Your task to perform on an android device: toggle pop-ups in chrome Image 0: 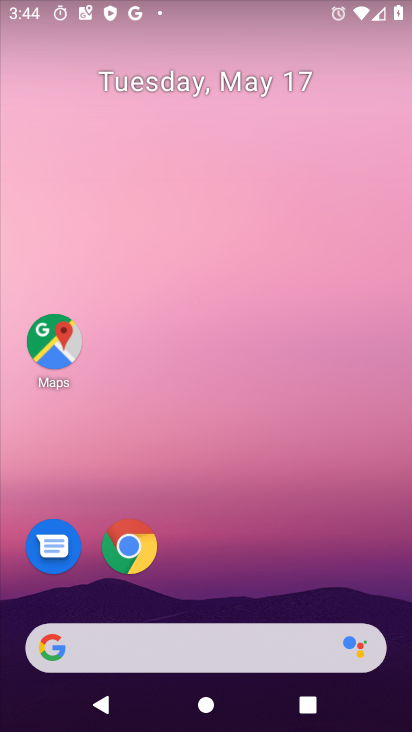
Step 0: click (118, 555)
Your task to perform on an android device: toggle pop-ups in chrome Image 1: 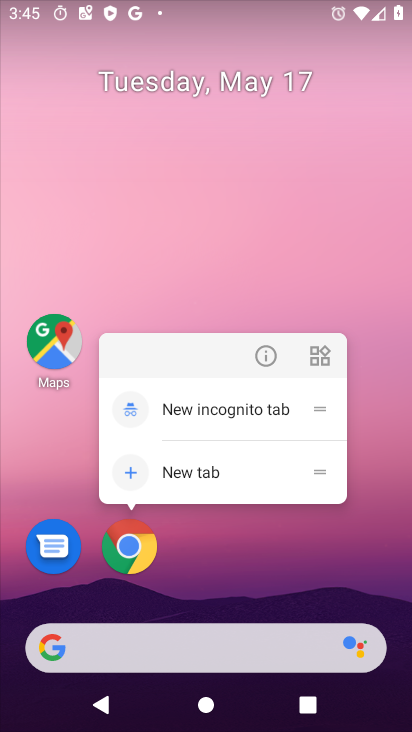
Step 1: click (134, 546)
Your task to perform on an android device: toggle pop-ups in chrome Image 2: 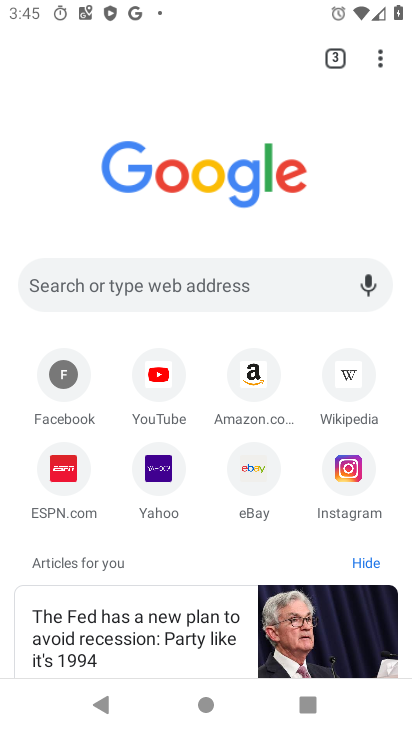
Step 2: click (382, 58)
Your task to perform on an android device: toggle pop-ups in chrome Image 3: 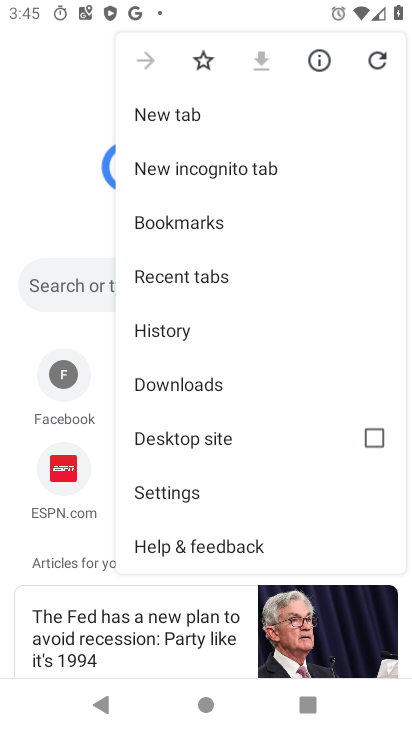
Step 3: click (200, 499)
Your task to perform on an android device: toggle pop-ups in chrome Image 4: 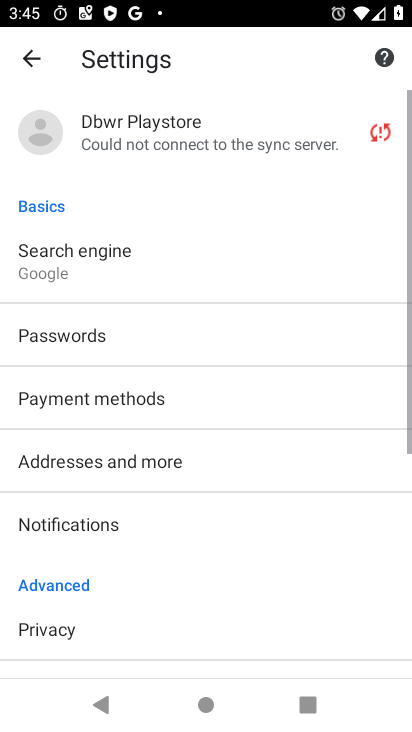
Step 4: drag from (233, 590) to (224, 376)
Your task to perform on an android device: toggle pop-ups in chrome Image 5: 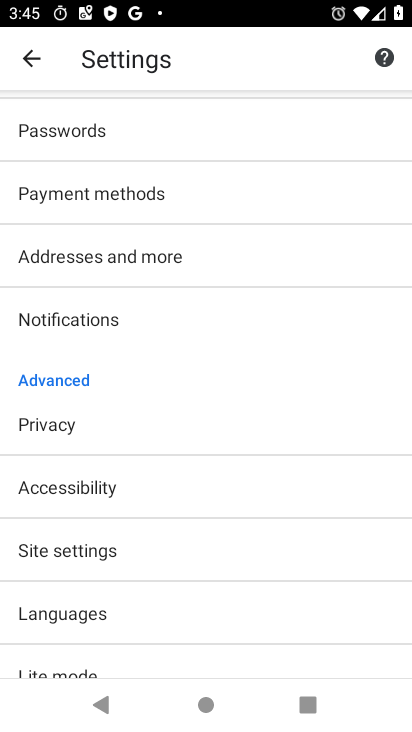
Step 5: click (80, 556)
Your task to perform on an android device: toggle pop-ups in chrome Image 6: 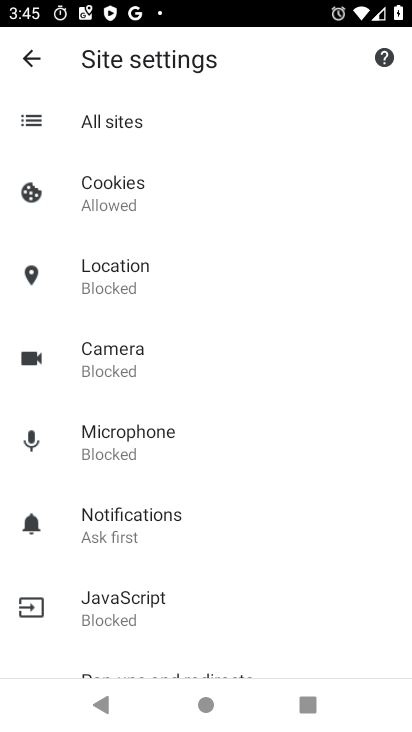
Step 6: click (216, 501)
Your task to perform on an android device: toggle pop-ups in chrome Image 7: 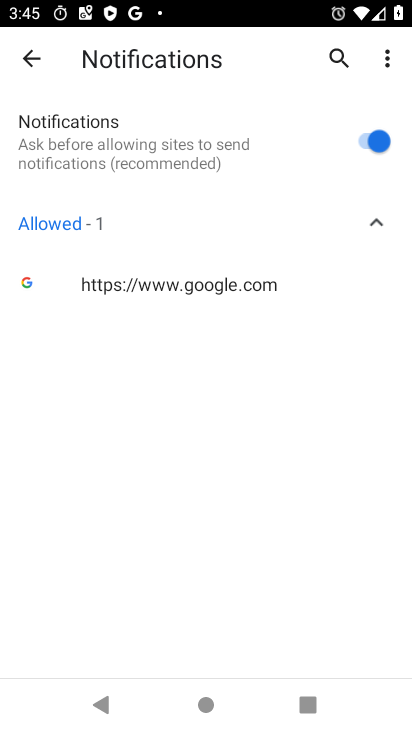
Step 7: click (19, 59)
Your task to perform on an android device: toggle pop-ups in chrome Image 8: 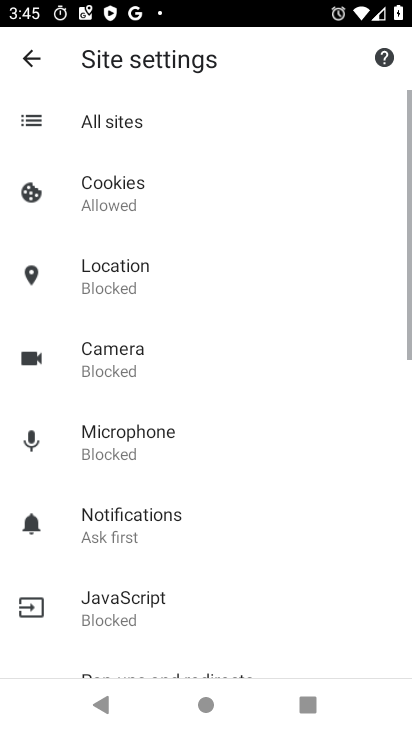
Step 8: drag from (341, 616) to (348, 265)
Your task to perform on an android device: toggle pop-ups in chrome Image 9: 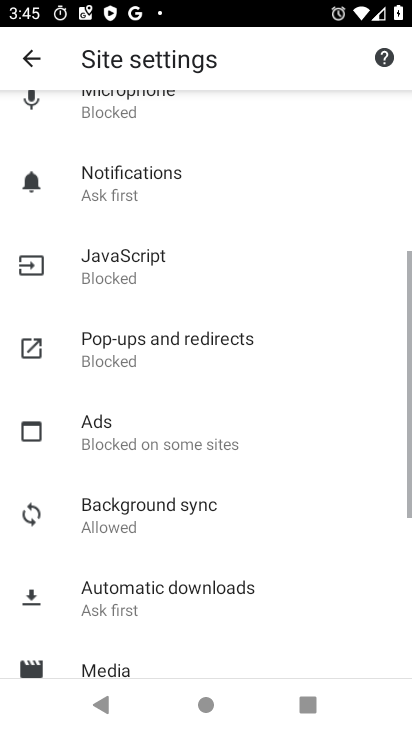
Step 9: click (136, 518)
Your task to perform on an android device: toggle pop-ups in chrome Image 10: 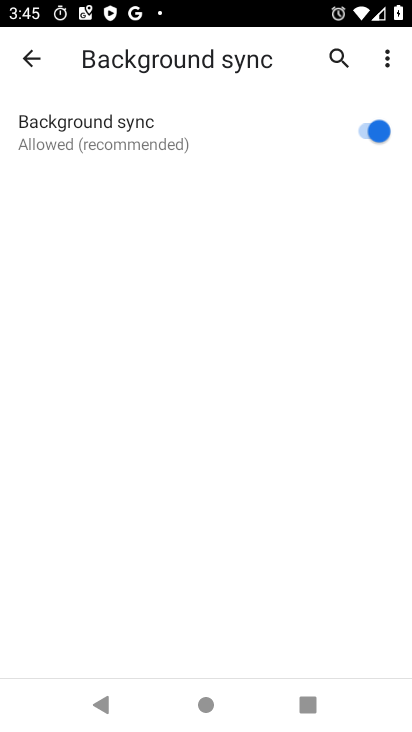
Step 10: click (29, 62)
Your task to perform on an android device: toggle pop-ups in chrome Image 11: 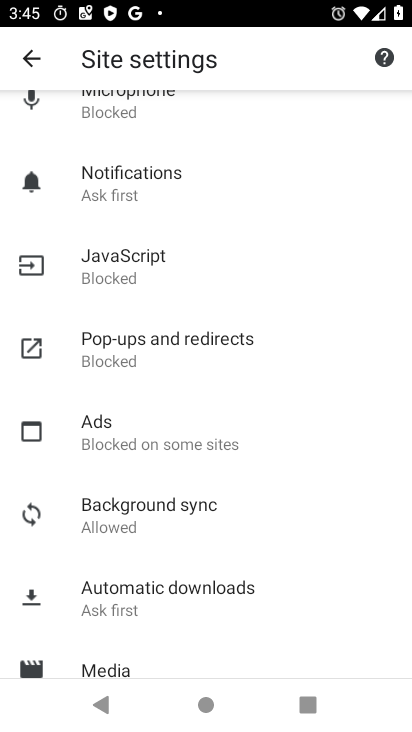
Step 11: click (148, 351)
Your task to perform on an android device: toggle pop-ups in chrome Image 12: 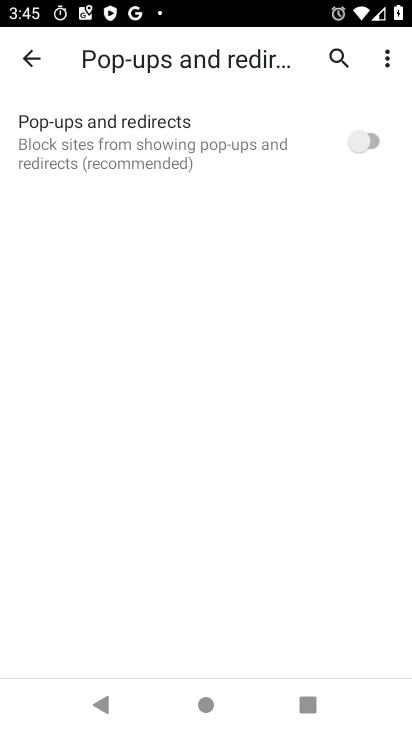
Step 12: click (373, 140)
Your task to perform on an android device: toggle pop-ups in chrome Image 13: 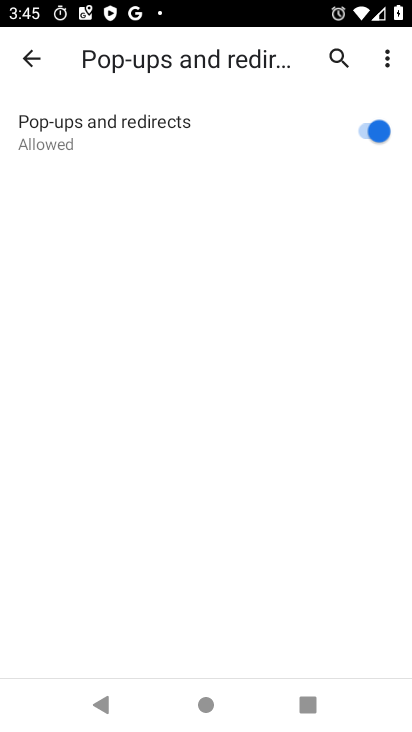
Step 13: task complete